Your task to perform on an android device: Open internet settings Image 0: 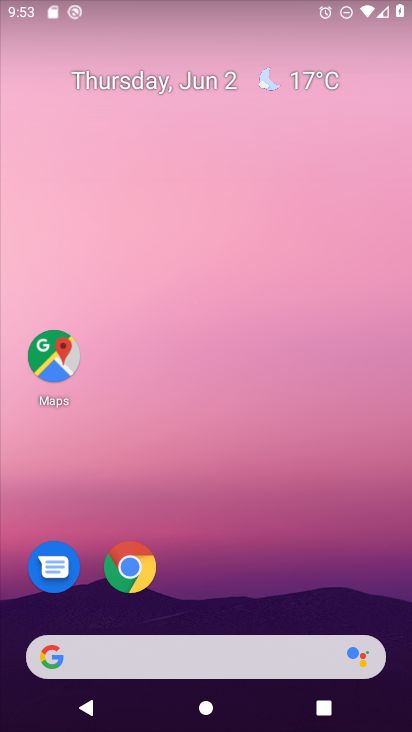
Step 0: drag from (226, 596) to (318, 11)
Your task to perform on an android device: Open internet settings Image 1: 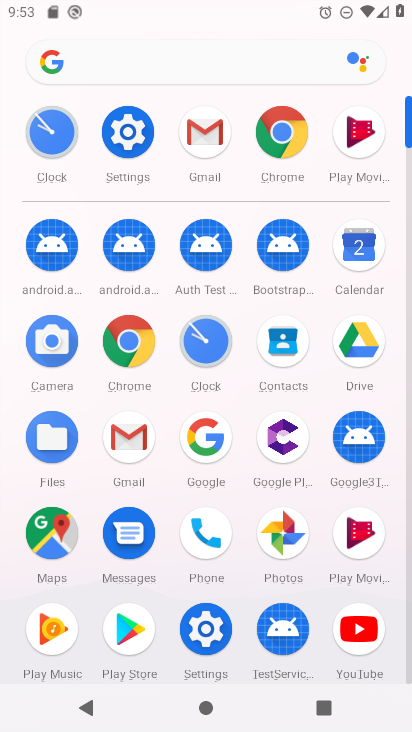
Step 1: click (128, 149)
Your task to perform on an android device: Open internet settings Image 2: 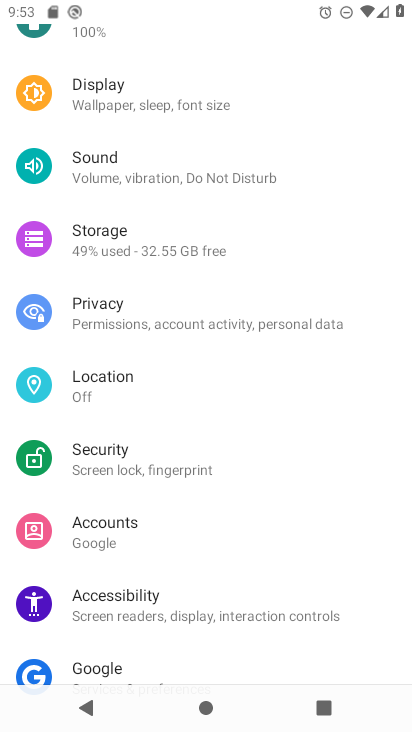
Step 2: drag from (156, 204) to (157, 443)
Your task to perform on an android device: Open internet settings Image 3: 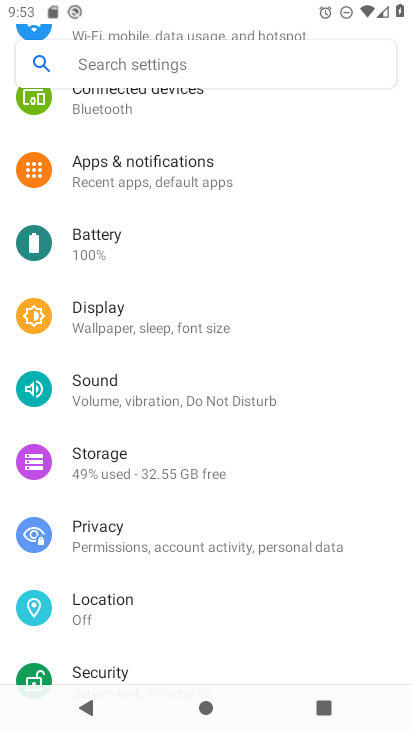
Step 3: drag from (187, 210) to (206, 698)
Your task to perform on an android device: Open internet settings Image 4: 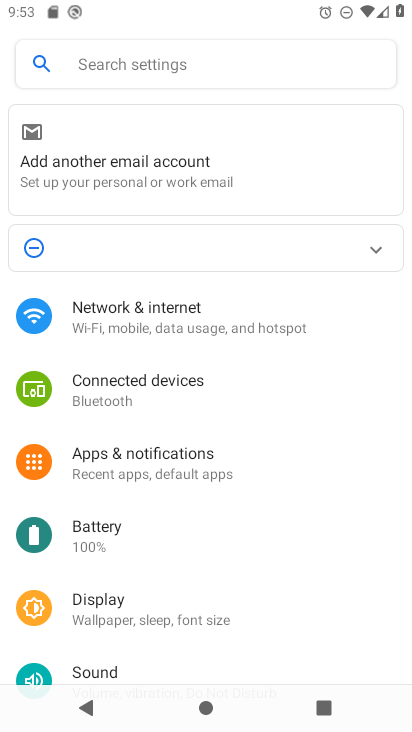
Step 4: click (183, 330)
Your task to perform on an android device: Open internet settings Image 5: 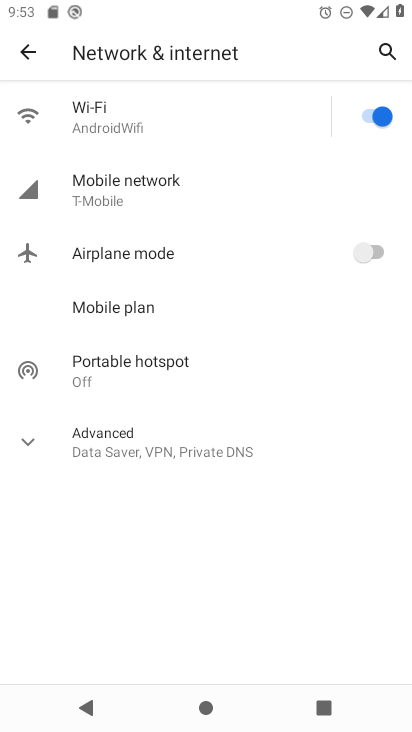
Step 5: task complete